Your task to perform on an android device: Is it going to rain tomorrow? Image 0: 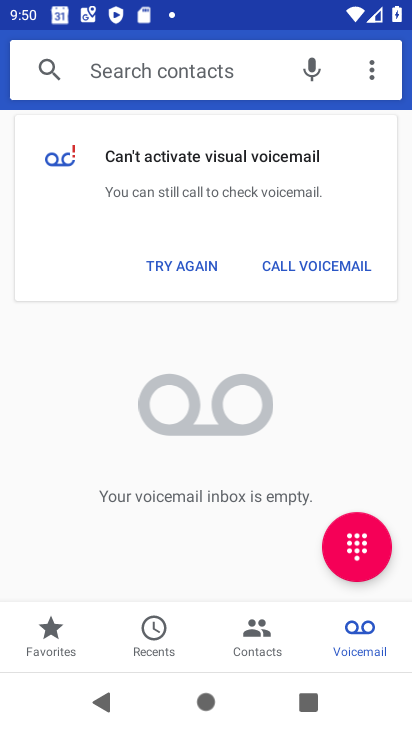
Step 0: press home button
Your task to perform on an android device: Is it going to rain tomorrow? Image 1: 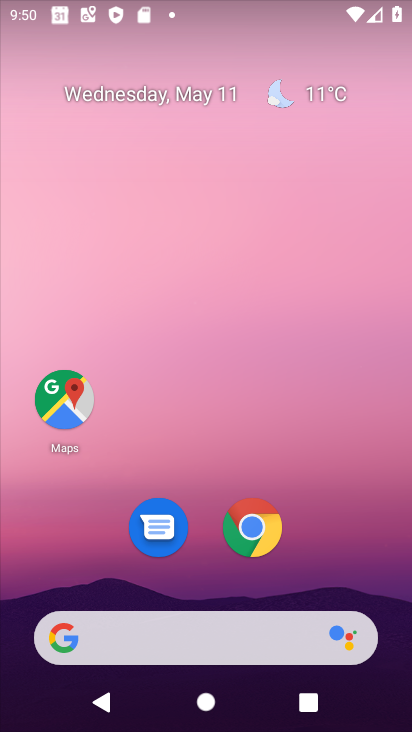
Step 1: click (331, 101)
Your task to perform on an android device: Is it going to rain tomorrow? Image 2: 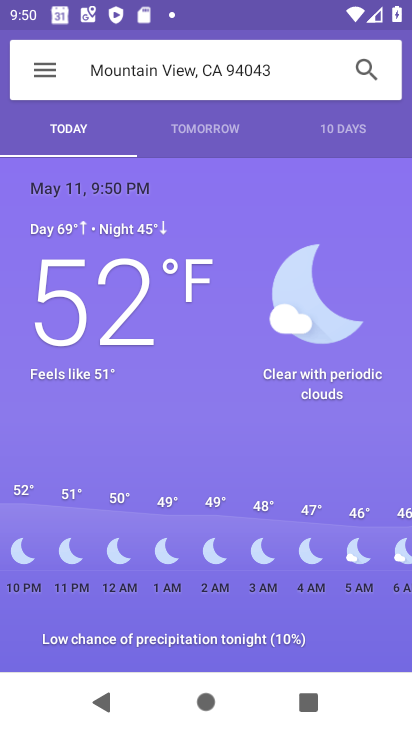
Step 2: task complete